Your task to perform on an android device: Open settings Image 0: 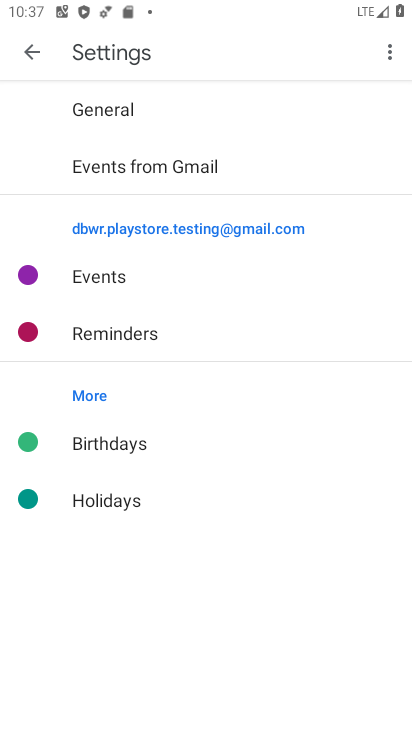
Step 0: press home button
Your task to perform on an android device: Open settings Image 1: 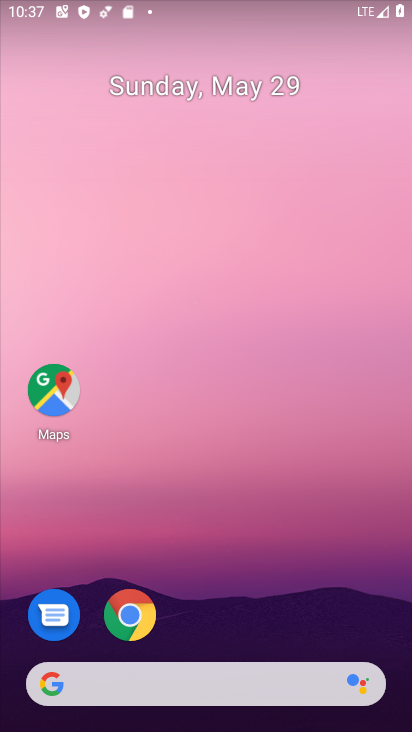
Step 1: drag from (347, 615) to (351, 195)
Your task to perform on an android device: Open settings Image 2: 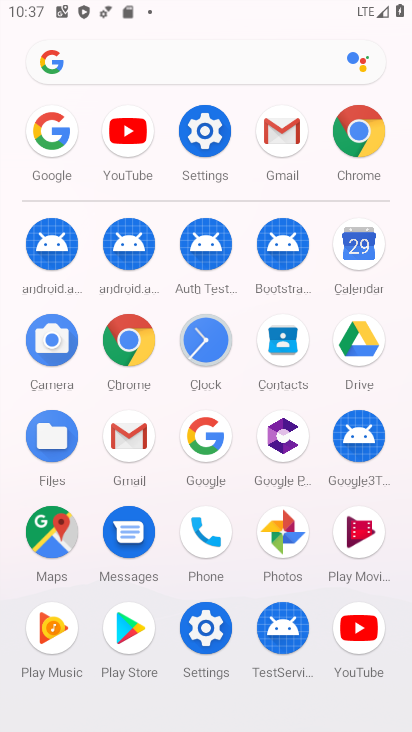
Step 2: click (223, 642)
Your task to perform on an android device: Open settings Image 3: 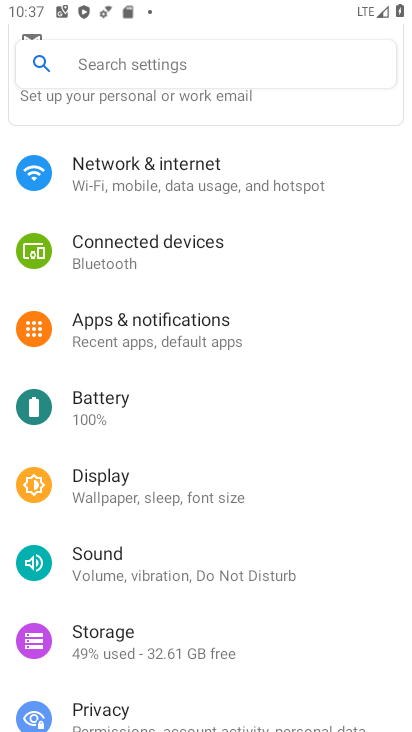
Step 3: task complete